Your task to perform on an android device: show emergency info Image 0: 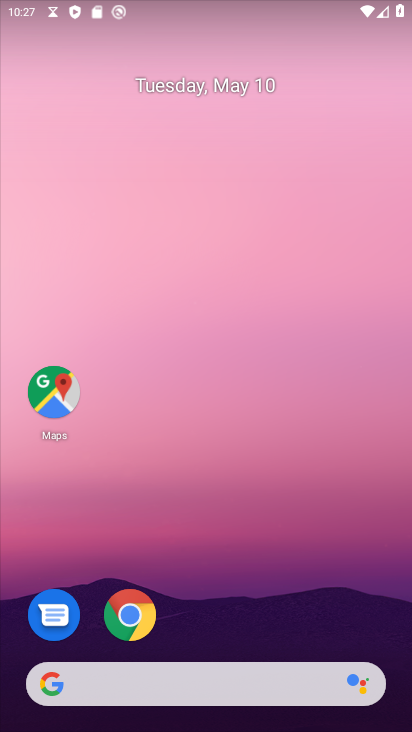
Step 0: drag from (229, 640) to (267, 252)
Your task to perform on an android device: show emergency info Image 1: 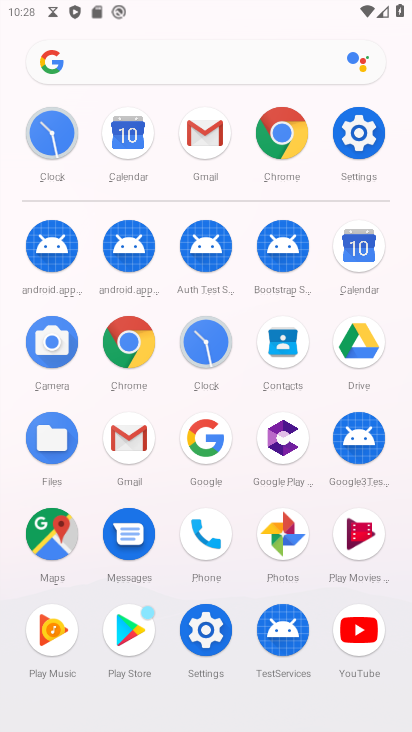
Step 1: click (208, 634)
Your task to perform on an android device: show emergency info Image 2: 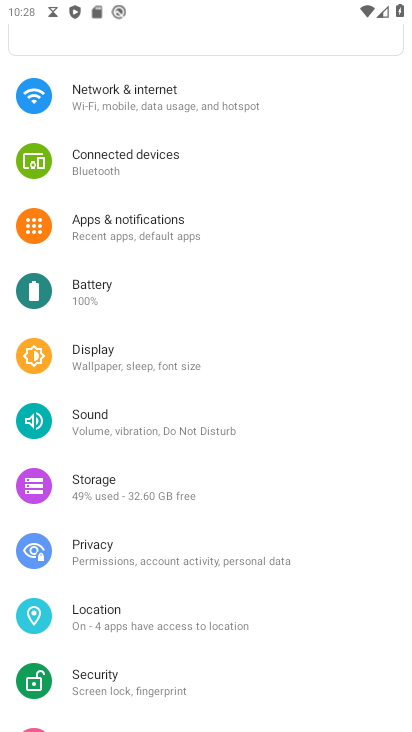
Step 2: drag from (172, 543) to (208, 450)
Your task to perform on an android device: show emergency info Image 3: 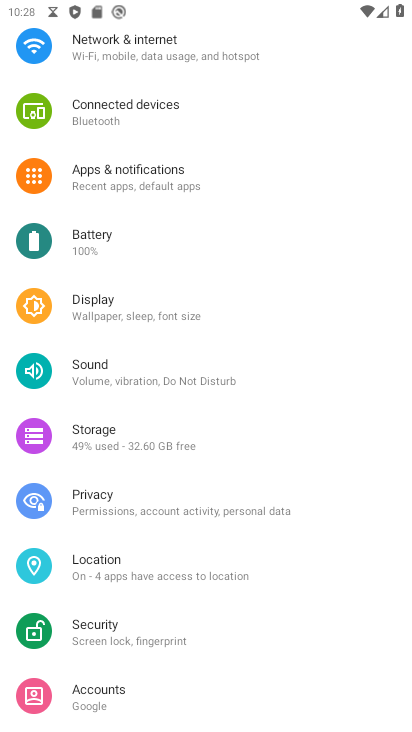
Step 3: drag from (151, 657) to (172, 557)
Your task to perform on an android device: show emergency info Image 4: 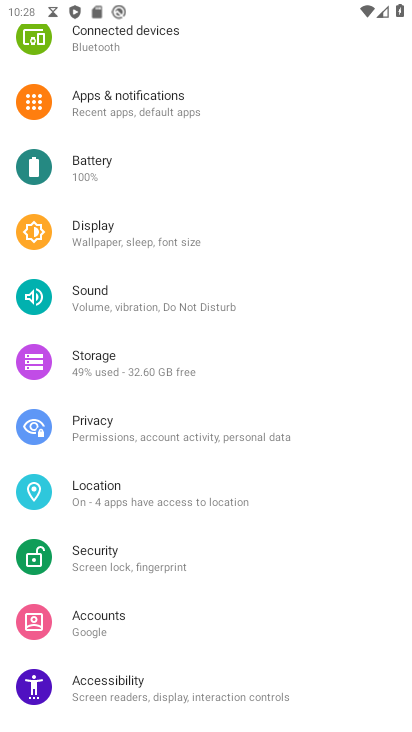
Step 4: drag from (156, 635) to (185, 528)
Your task to perform on an android device: show emergency info Image 5: 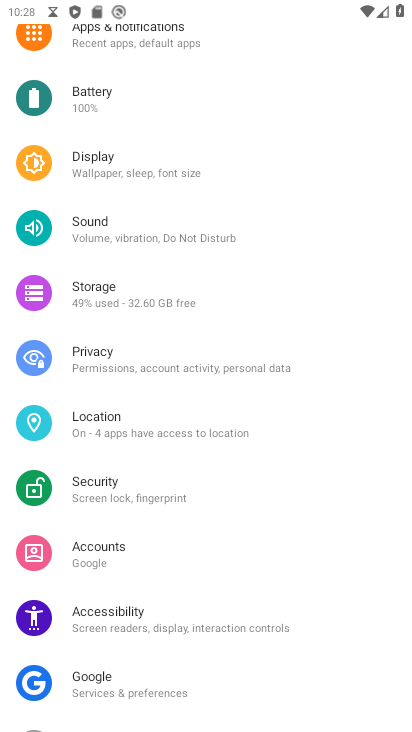
Step 5: drag from (141, 659) to (188, 544)
Your task to perform on an android device: show emergency info Image 6: 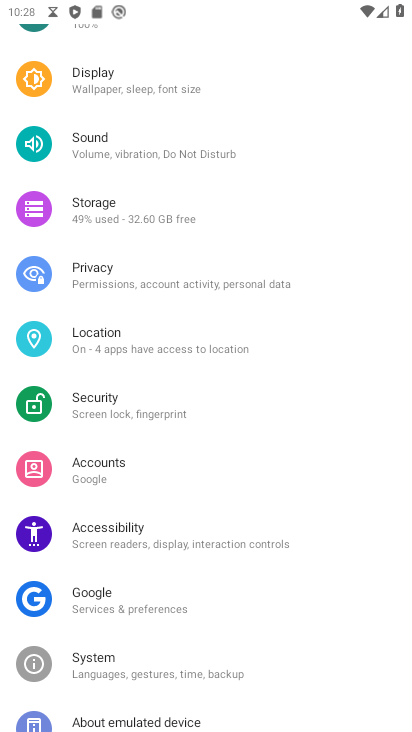
Step 6: drag from (144, 635) to (212, 526)
Your task to perform on an android device: show emergency info Image 7: 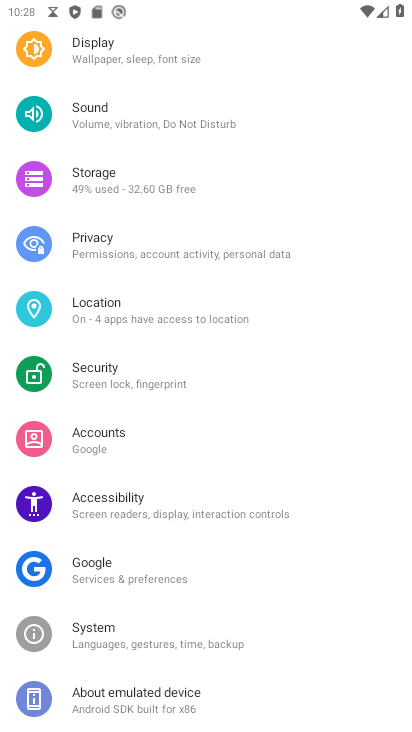
Step 7: click (129, 690)
Your task to perform on an android device: show emergency info Image 8: 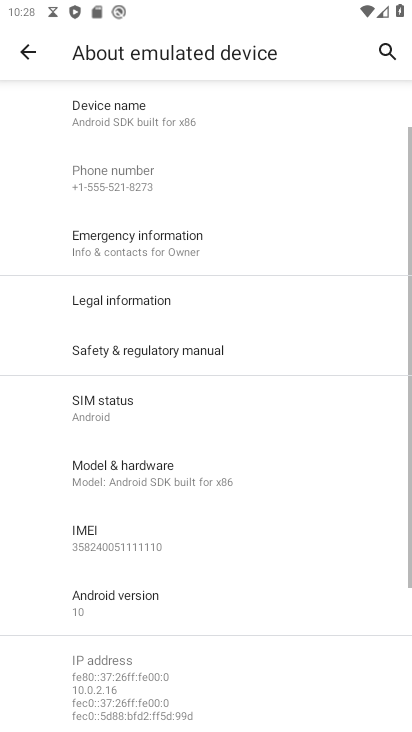
Step 8: click (197, 232)
Your task to perform on an android device: show emergency info Image 9: 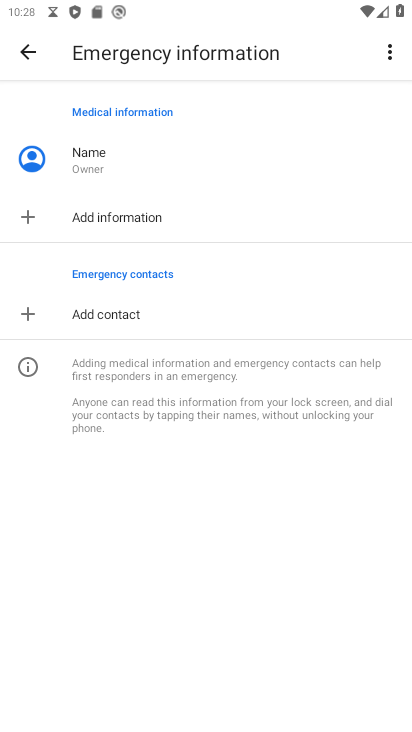
Step 9: task complete